Your task to perform on an android device: open app "DoorDash - Food Delivery" (install if not already installed) and go to login screen Image 0: 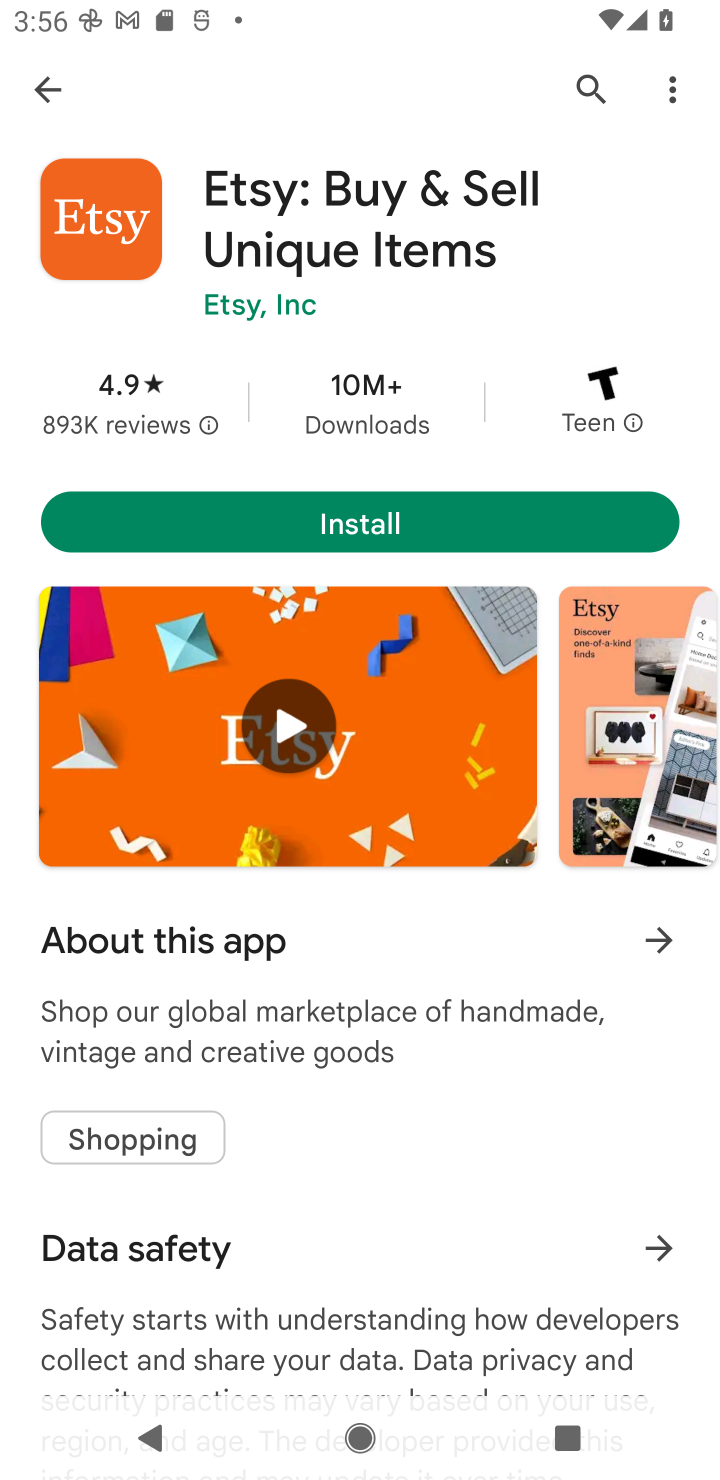
Step 0: press home button
Your task to perform on an android device: open app "DoorDash - Food Delivery" (install if not already installed) and go to login screen Image 1: 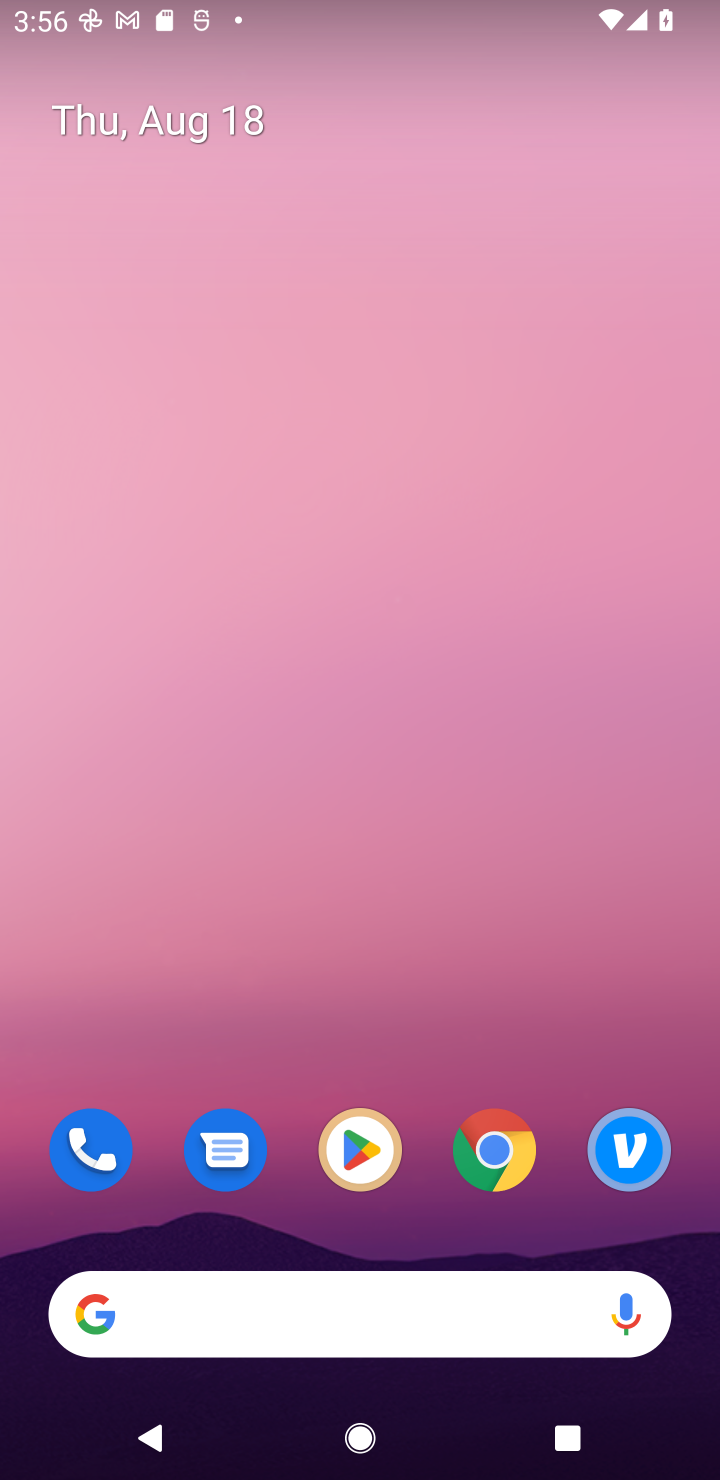
Step 1: drag from (557, 1221) to (524, 447)
Your task to perform on an android device: open app "DoorDash - Food Delivery" (install if not already installed) and go to login screen Image 2: 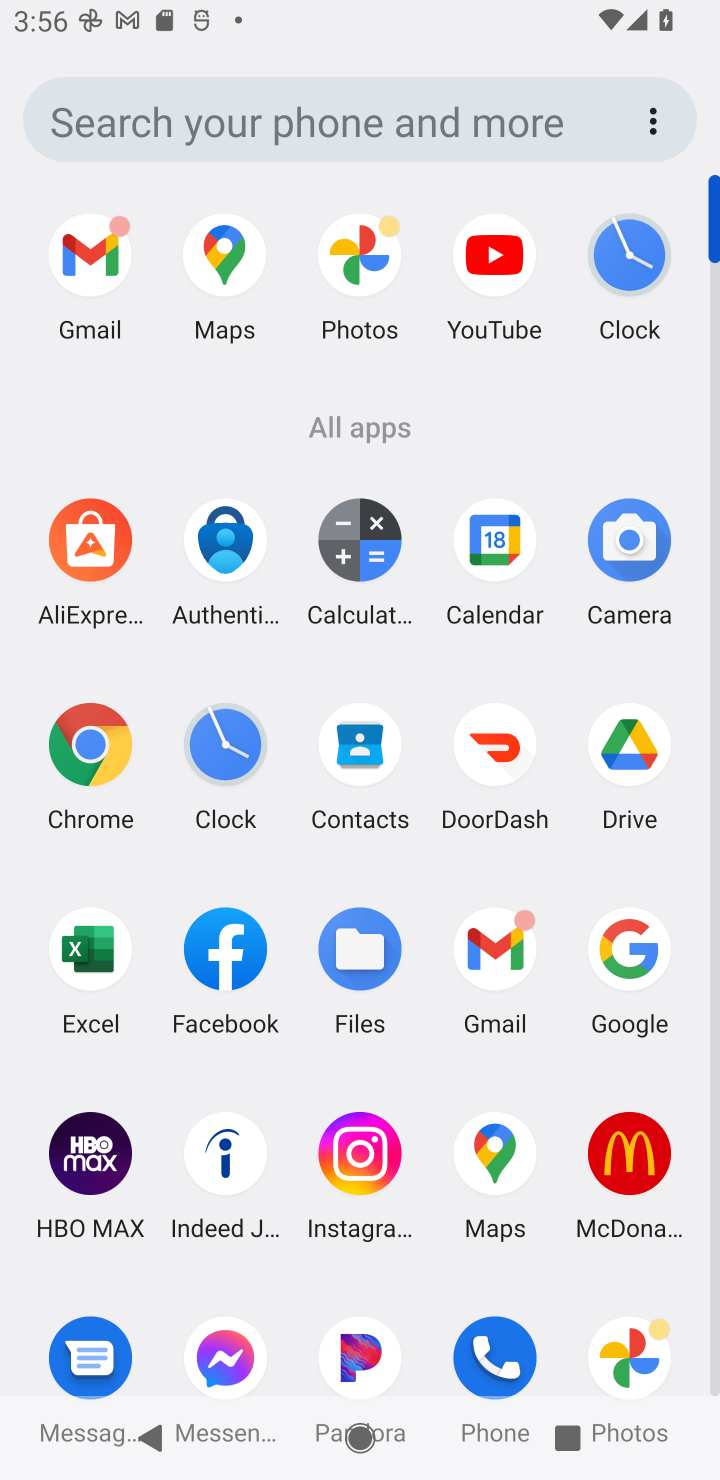
Step 2: click (498, 744)
Your task to perform on an android device: open app "DoorDash - Food Delivery" (install if not already installed) and go to login screen Image 3: 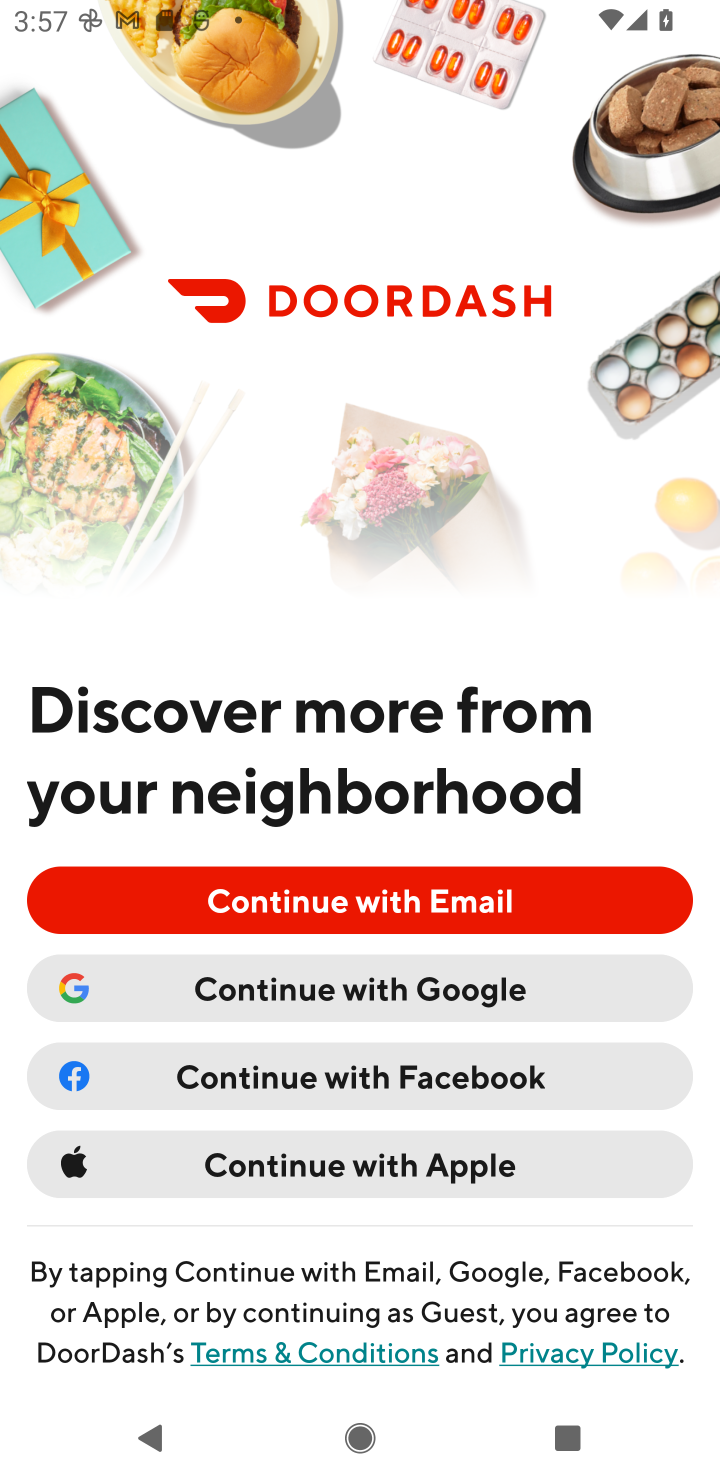
Step 3: task complete